Your task to perform on an android device: Set the phone to "Do not disturb". Image 0: 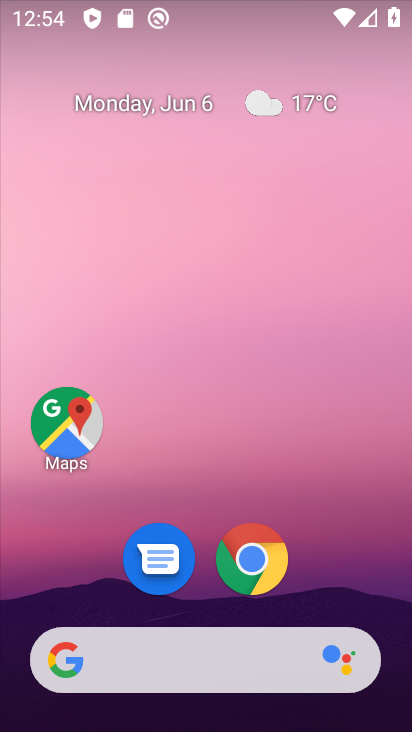
Step 0: drag from (214, 609) to (211, 50)
Your task to perform on an android device: Set the phone to "Do not disturb". Image 1: 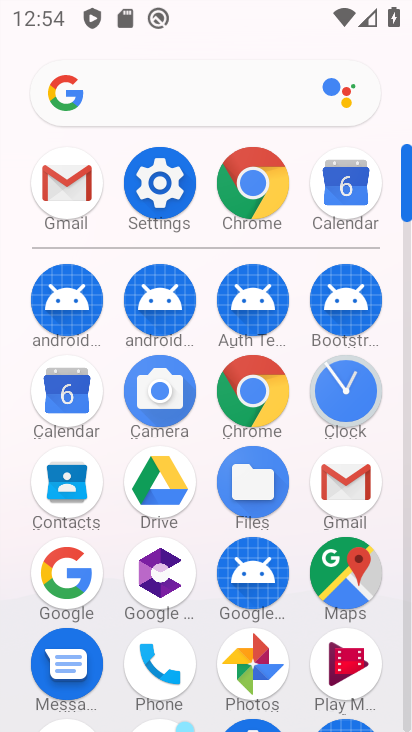
Step 1: drag from (211, 119) to (221, 559)
Your task to perform on an android device: Set the phone to "Do not disturb". Image 2: 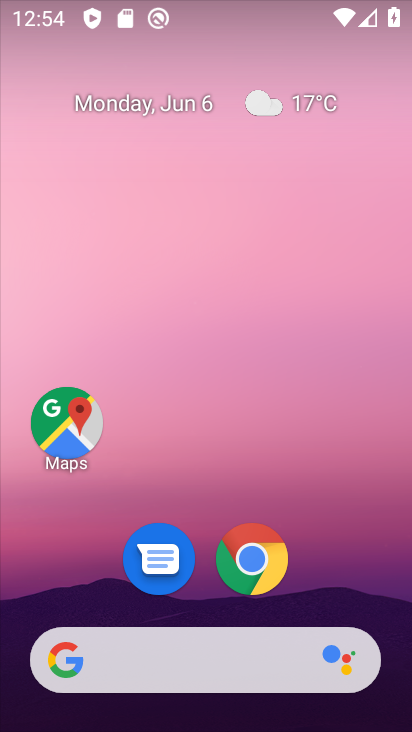
Step 2: drag from (194, 31) to (201, 652)
Your task to perform on an android device: Set the phone to "Do not disturb". Image 3: 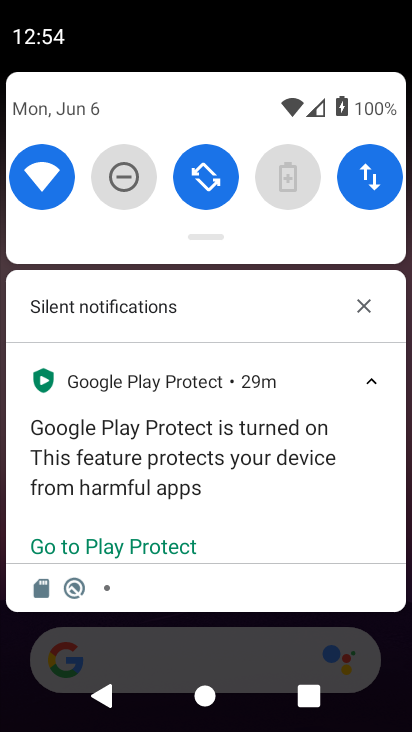
Step 3: drag from (148, 237) to (139, 627)
Your task to perform on an android device: Set the phone to "Do not disturb". Image 4: 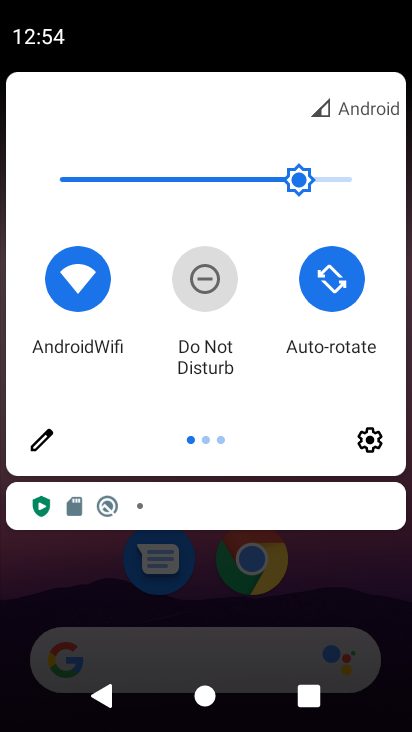
Step 4: click (206, 273)
Your task to perform on an android device: Set the phone to "Do not disturb". Image 5: 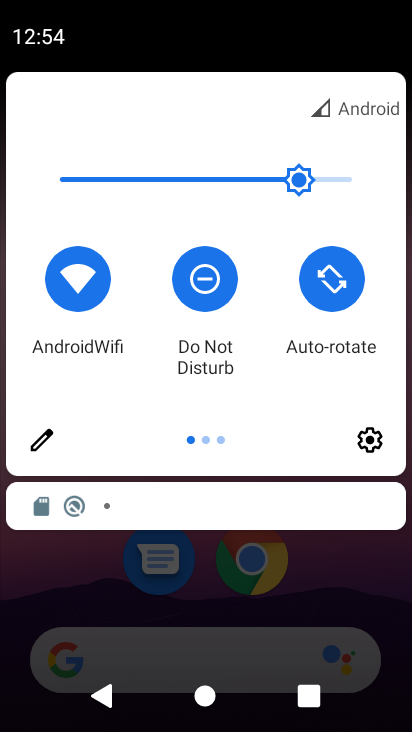
Step 5: task complete